Your task to perform on an android device: Is it going to rain today? Image 0: 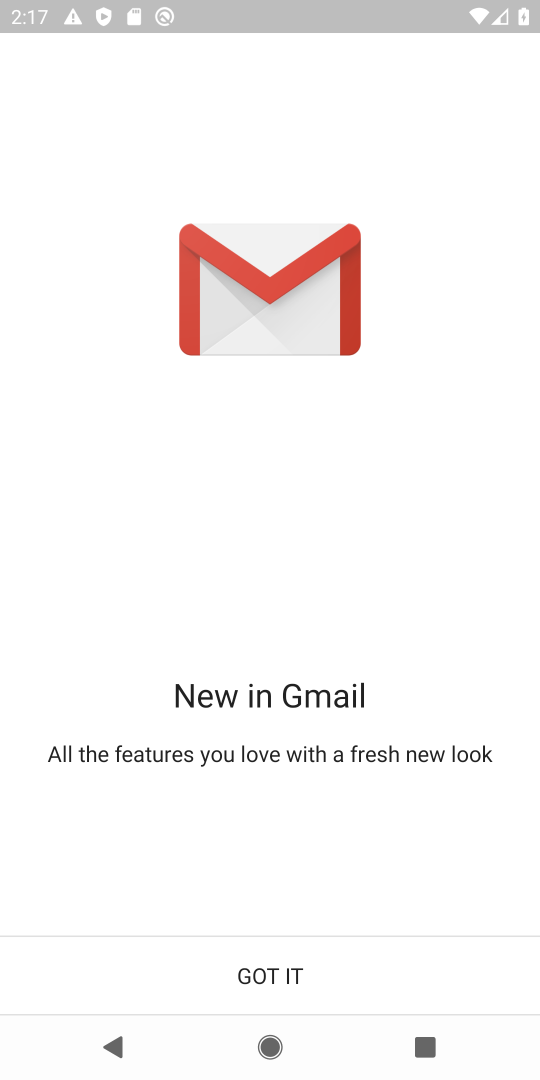
Step 0: press back button
Your task to perform on an android device: Is it going to rain today? Image 1: 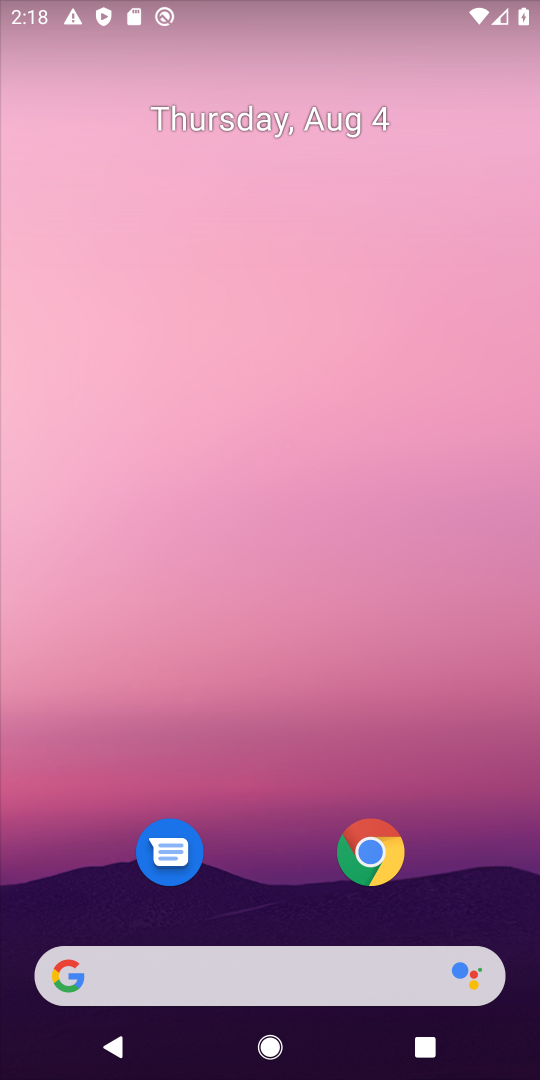
Step 1: click (248, 982)
Your task to perform on an android device: Is it going to rain today? Image 2: 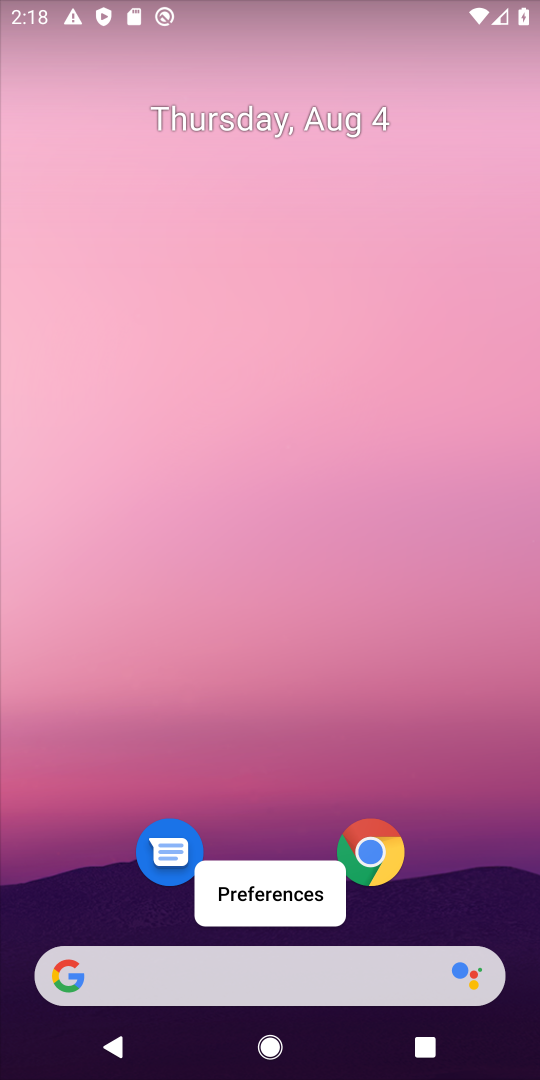
Step 2: click (239, 969)
Your task to perform on an android device: Is it going to rain today? Image 3: 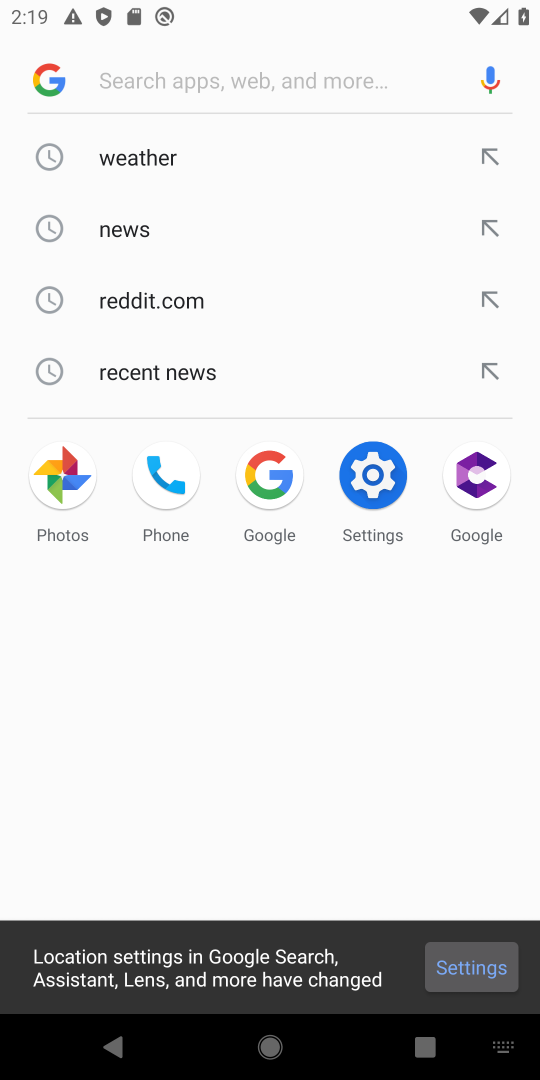
Step 3: click (134, 160)
Your task to perform on an android device: Is it going to rain today? Image 4: 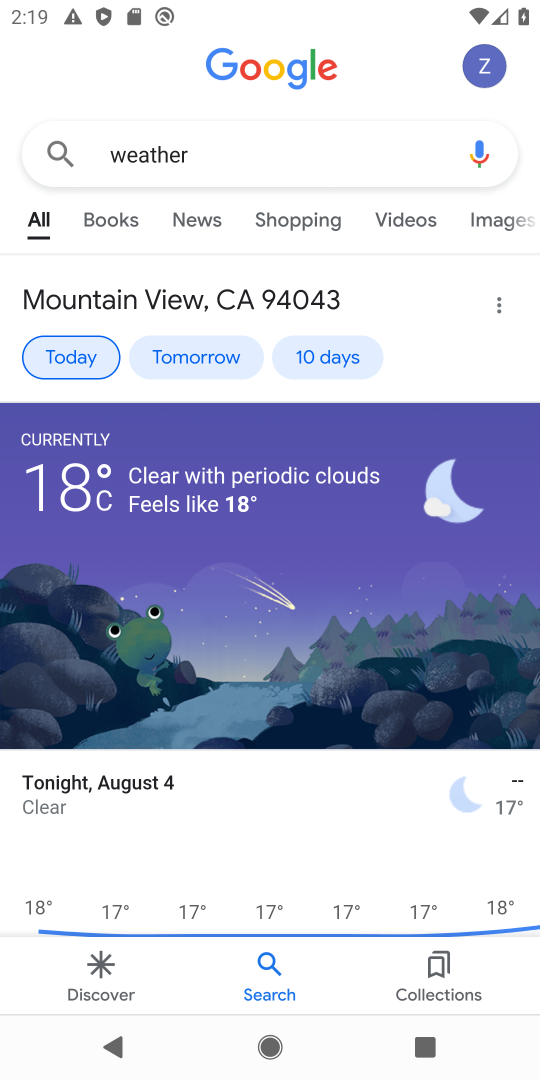
Step 4: task complete